Your task to perform on an android device: Go to Amazon Image 0: 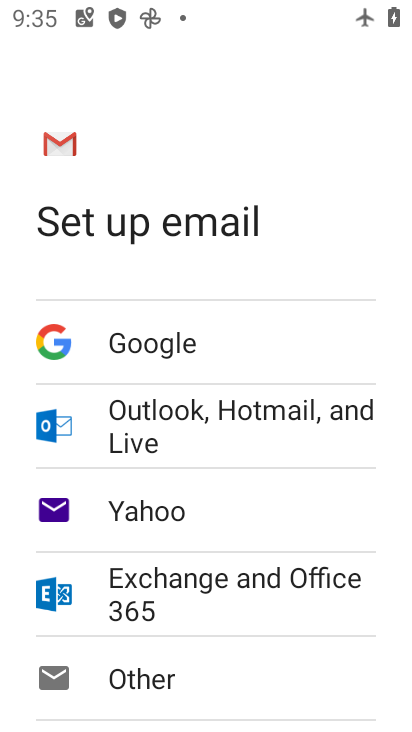
Step 0: press home button
Your task to perform on an android device: Go to Amazon Image 1: 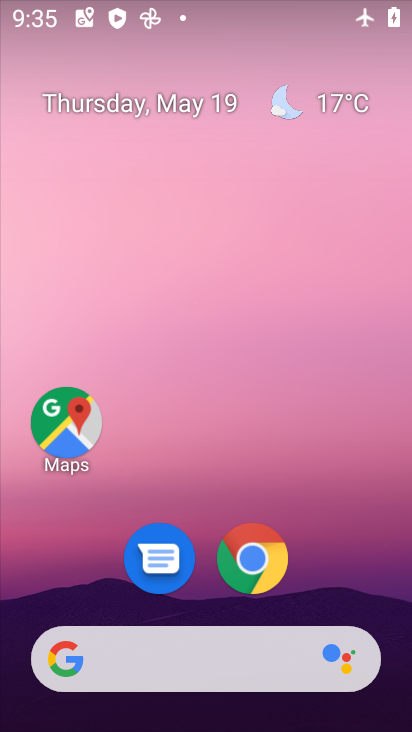
Step 1: click (246, 560)
Your task to perform on an android device: Go to Amazon Image 2: 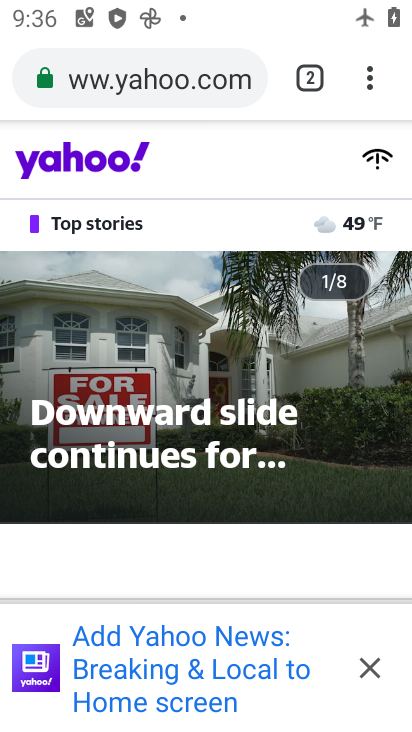
Step 2: click (369, 89)
Your task to perform on an android device: Go to Amazon Image 3: 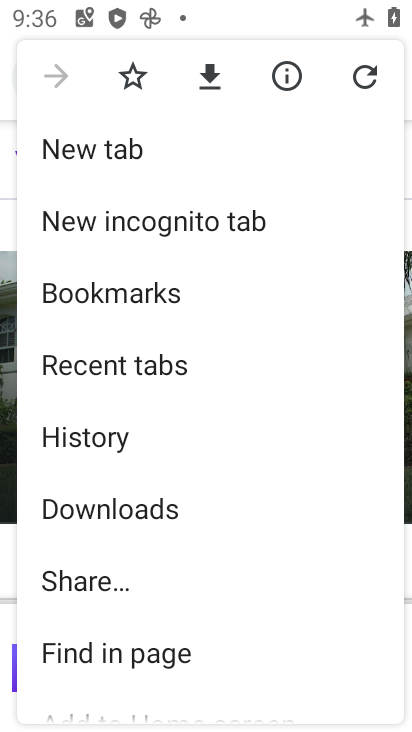
Step 3: click (97, 150)
Your task to perform on an android device: Go to Amazon Image 4: 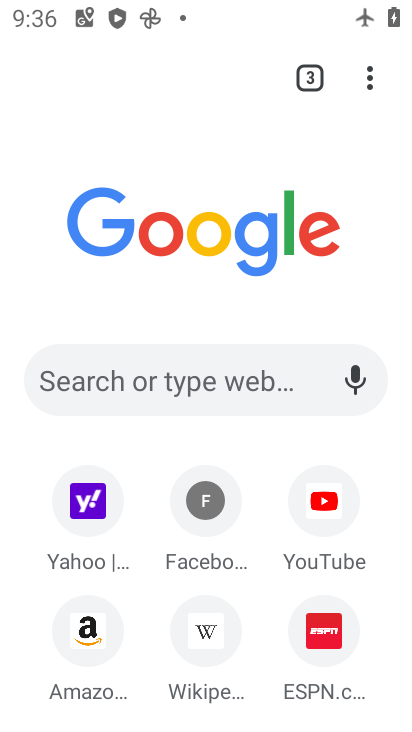
Step 4: click (88, 641)
Your task to perform on an android device: Go to Amazon Image 5: 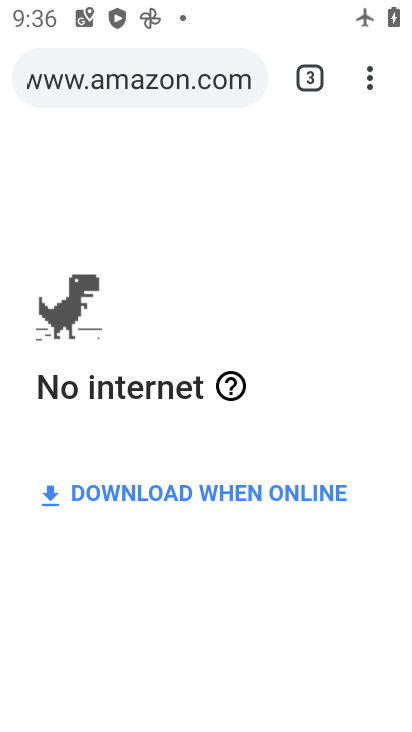
Step 5: task complete